Your task to perform on an android device: Go to notification settings Image 0: 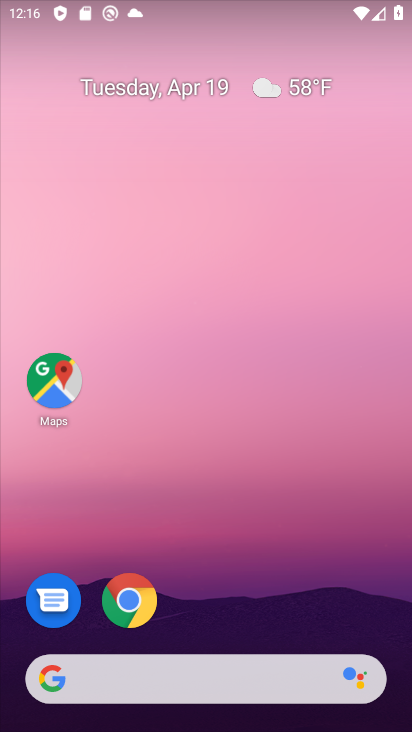
Step 0: drag from (384, 602) to (234, 17)
Your task to perform on an android device: Go to notification settings Image 1: 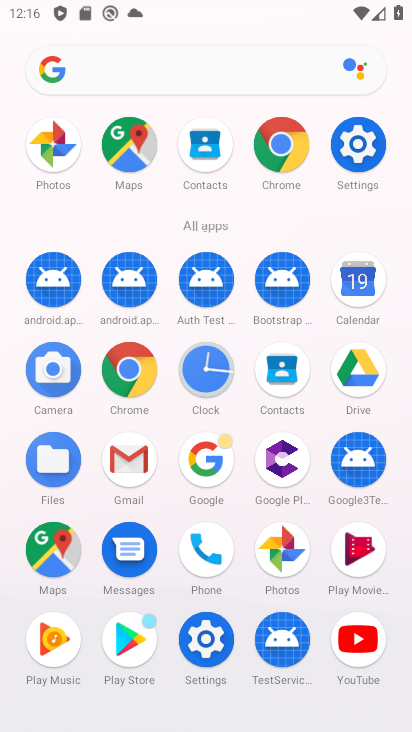
Step 1: click (353, 165)
Your task to perform on an android device: Go to notification settings Image 2: 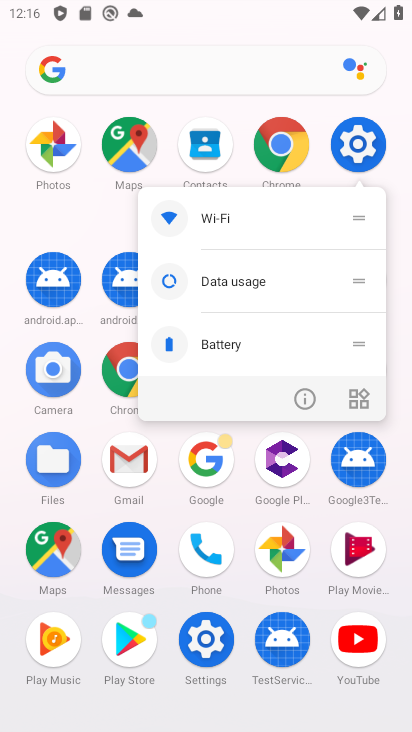
Step 2: click (354, 150)
Your task to perform on an android device: Go to notification settings Image 3: 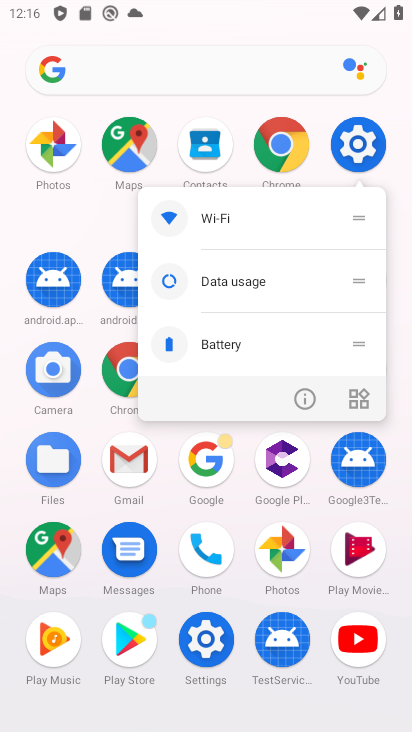
Step 3: click (356, 141)
Your task to perform on an android device: Go to notification settings Image 4: 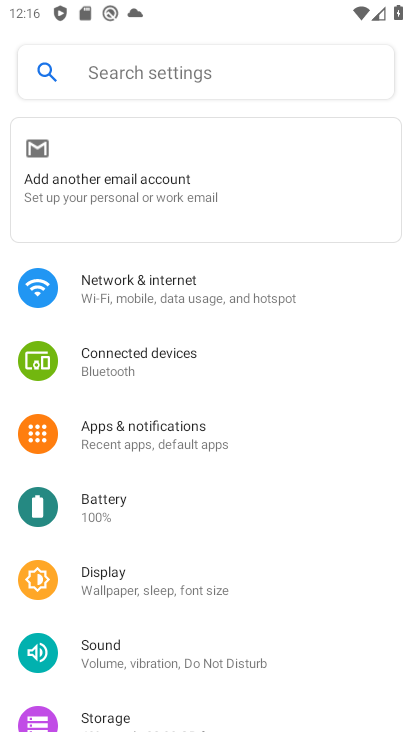
Step 4: click (252, 425)
Your task to perform on an android device: Go to notification settings Image 5: 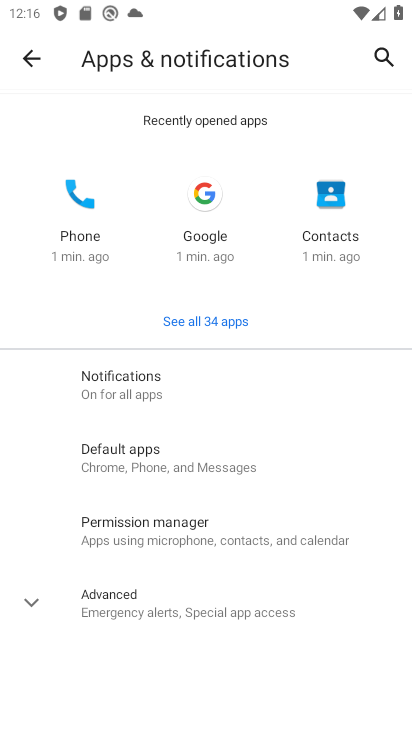
Step 5: click (240, 394)
Your task to perform on an android device: Go to notification settings Image 6: 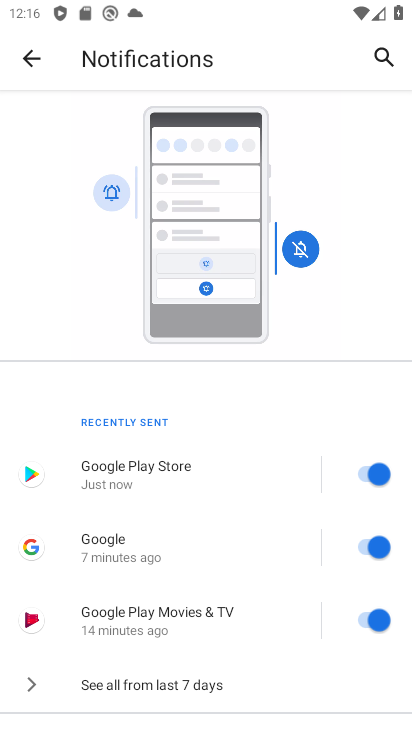
Step 6: task complete